Your task to perform on an android device: What's on the menu at Five Guys? Image 0: 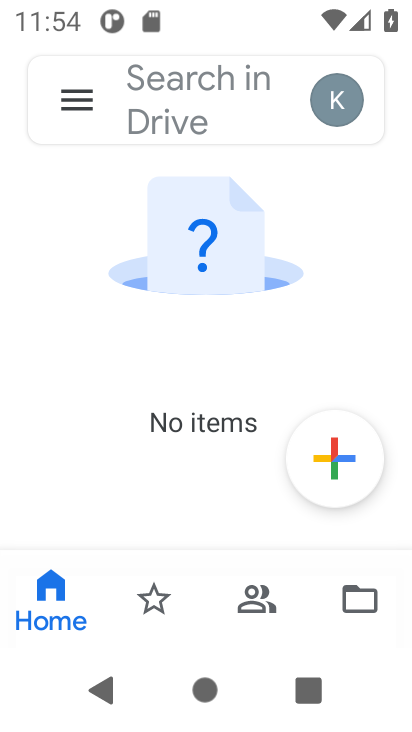
Step 0: press home button
Your task to perform on an android device: What's on the menu at Five Guys? Image 1: 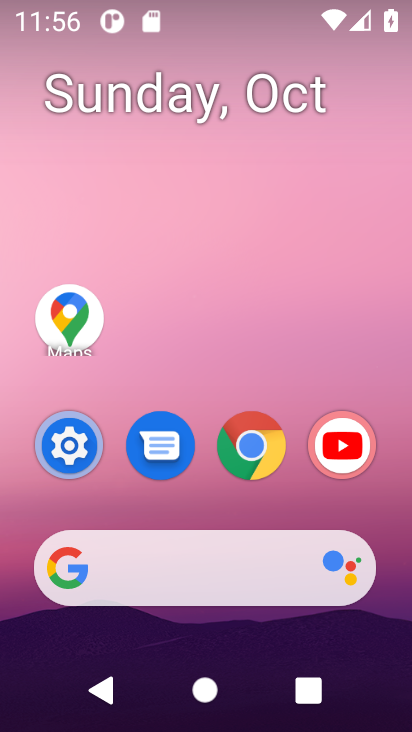
Step 1: click (259, 447)
Your task to perform on an android device: What's on the menu at Five Guys? Image 2: 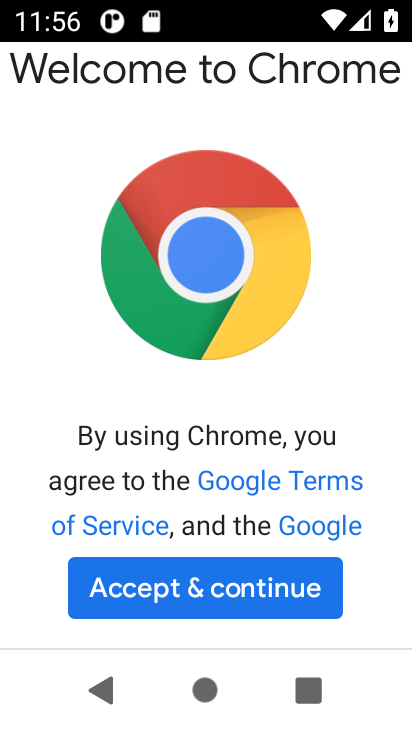
Step 2: click (224, 576)
Your task to perform on an android device: What's on the menu at Five Guys? Image 3: 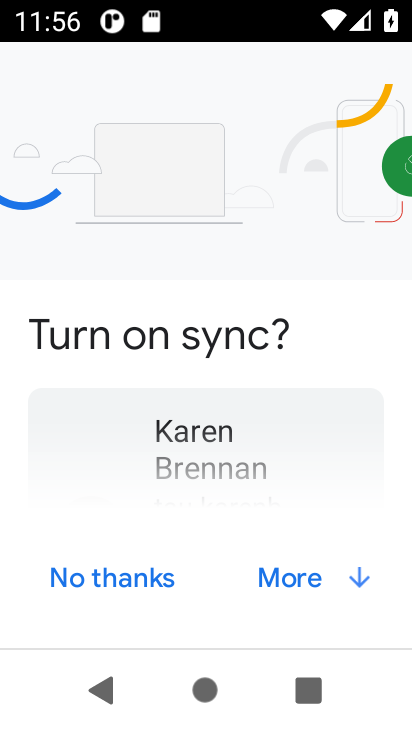
Step 3: click (153, 582)
Your task to perform on an android device: What's on the menu at Five Guys? Image 4: 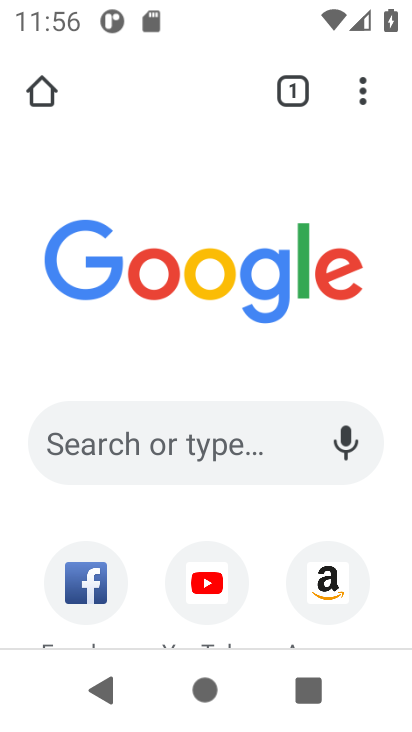
Step 4: click (96, 440)
Your task to perform on an android device: What's on the menu at Five Guys? Image 5: 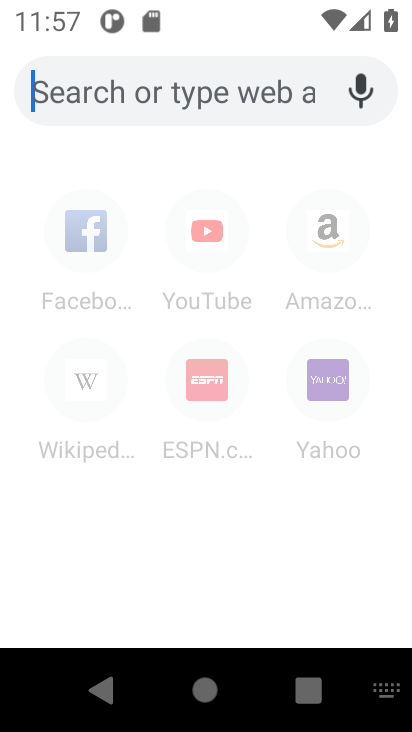
Step 5: type "whats on the menu at five guys?"
Your task to perform on an android device: What's on the menu at Five Guys? Image 6: 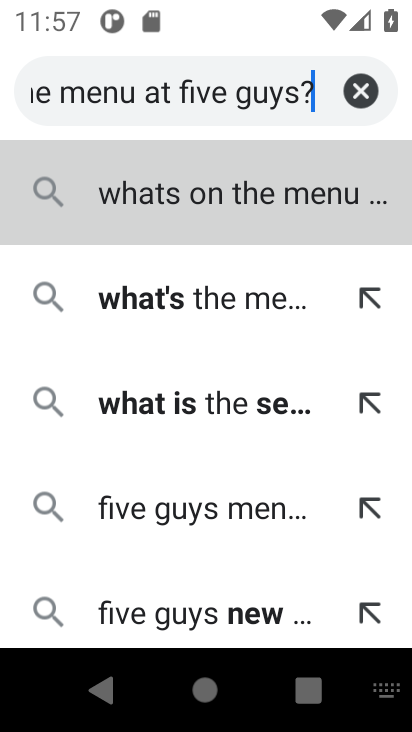
Step 6: click (324, 214)
Your task to perform on an android device: What's on the menu at Five Guys? Image 7: 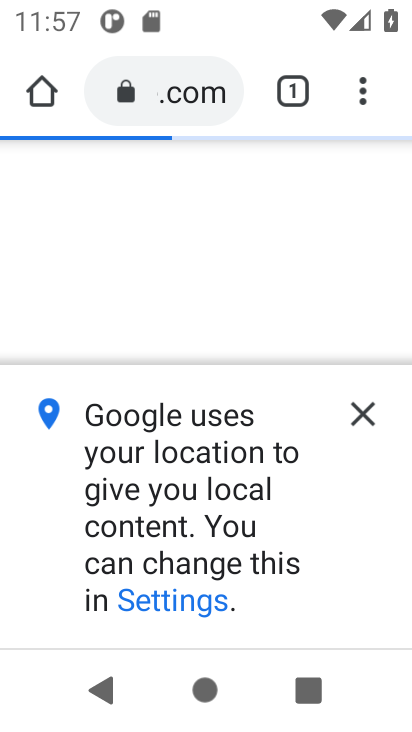
Step 7: task complete